Your task to perform on an android device: toggle notification dots Image 0: 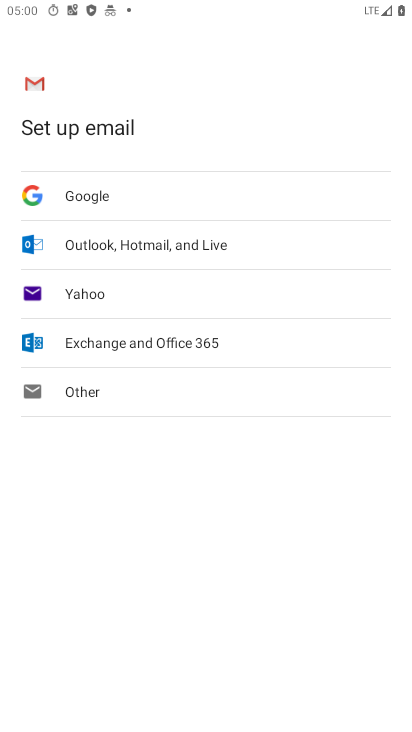
Step 0: press home button
Your task to perform on an android device: toggle notification dots Image 1: 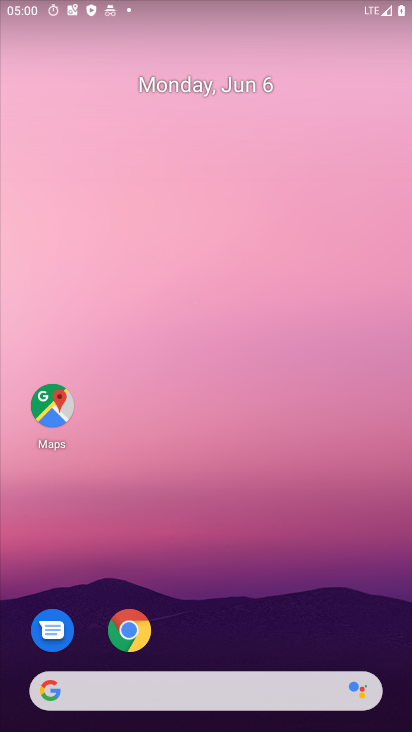
Step 1: drag from (234, 631) to (342, 204)
Your task to perform on an android device: toggle notification dots Image 2: 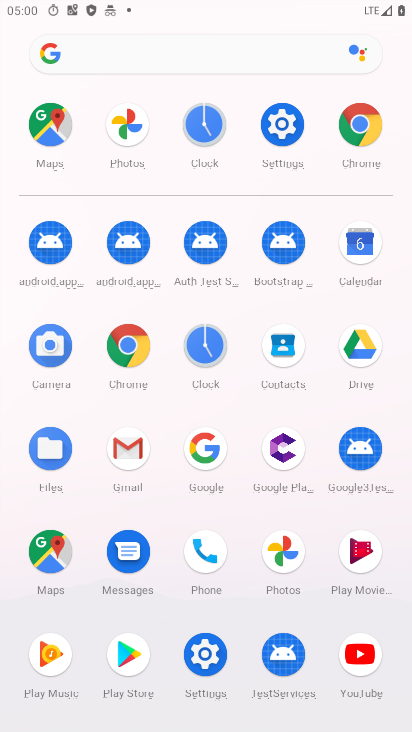
Step 2: click (283, 129)
Your task to perform on an android device: toggle notification dots Image 3: 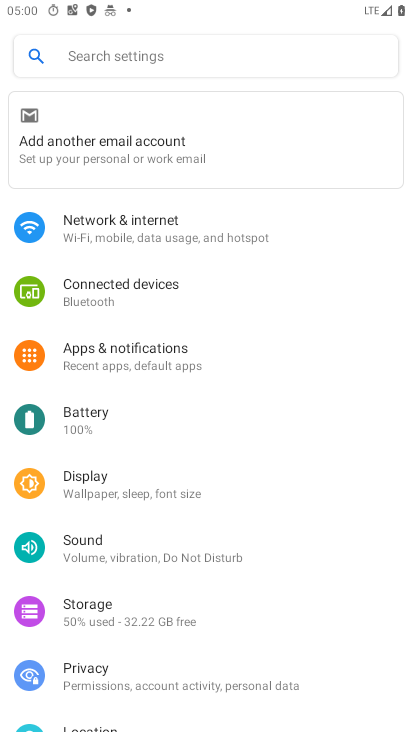
Step 3: click (107, 351)
Your task to perform on an android device: toggle notification dots Image 4: 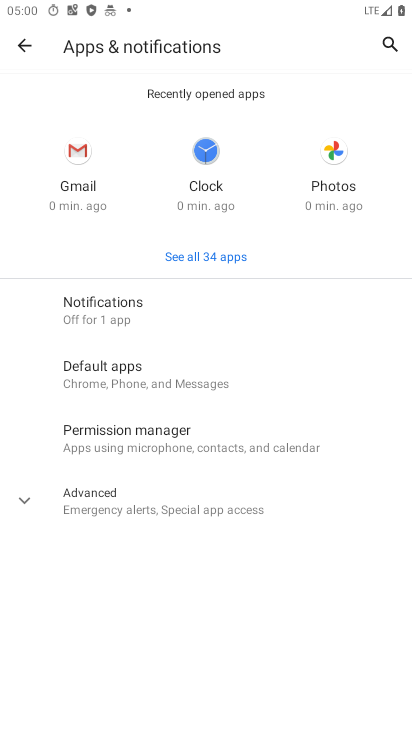
Step 4: click (160, 504)
Your task to perform on an android device: toggle notification dots Image 5: 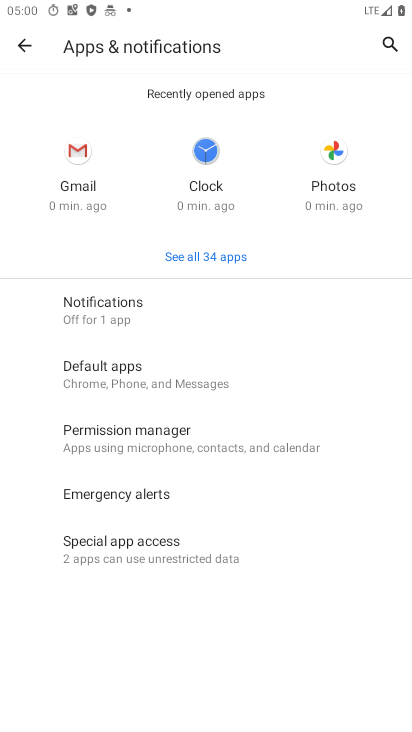
Step 5: click (118, 323)
Your task to perform on an android device: toggle notification dots Image 6: 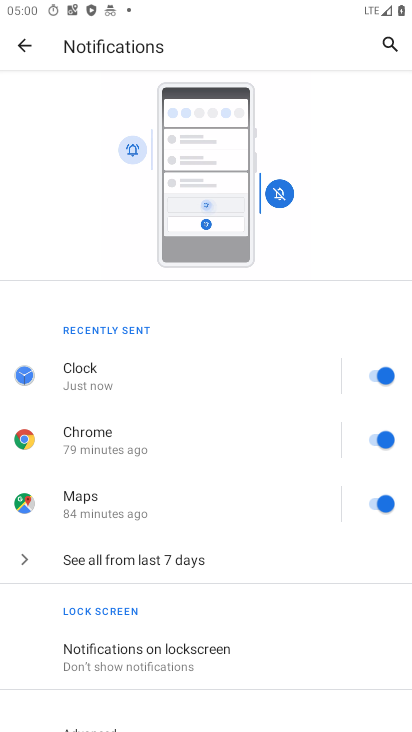
Step 6: drag from (192, 625) to (254, 384)
Your task to perform on an android device: toggle notification dots Image 7: 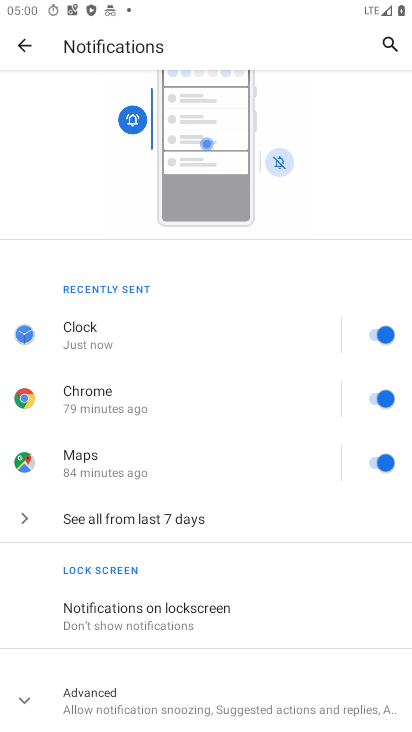
Step 7: click (118, 702)
Your task to perform on an android device: toggle notification dots Image 8: 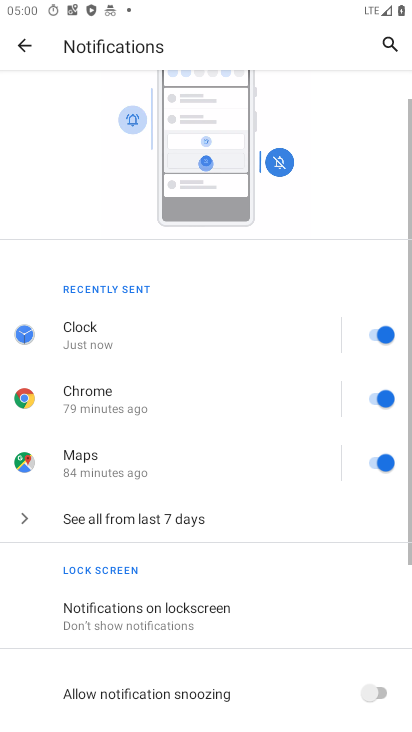
Step 8: drag from (224, 683) to (267, 345)
Your task to perform on an android device: toggle notification dots Image 9: 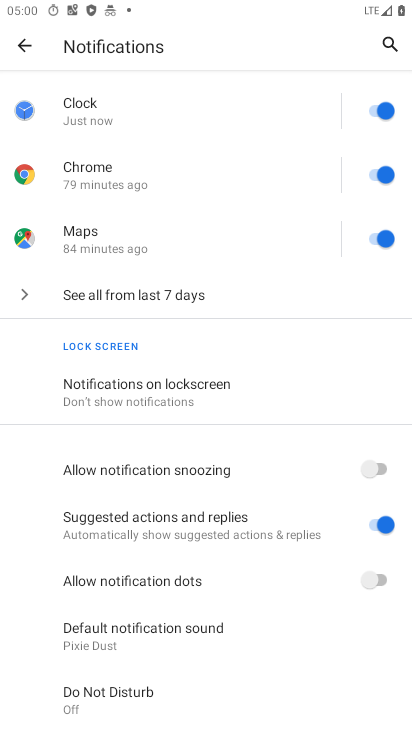
Step 9: click (376, 580)
Your task to perform on an android device: toggle notification dots Image 10: 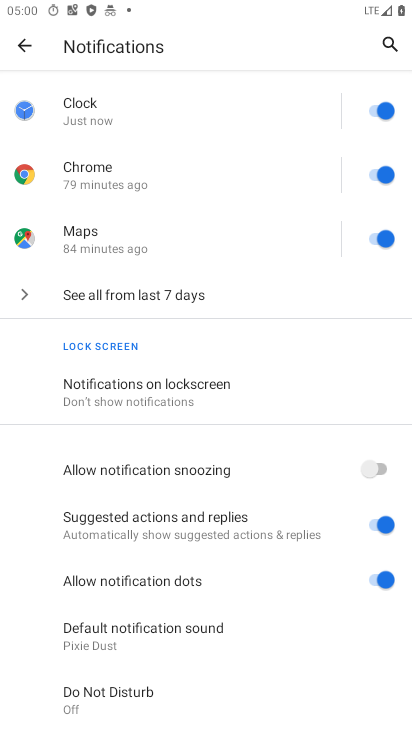
Step 10: task complete